Your task to perform on an android device: Show me popular games on the Play Store Image 0: 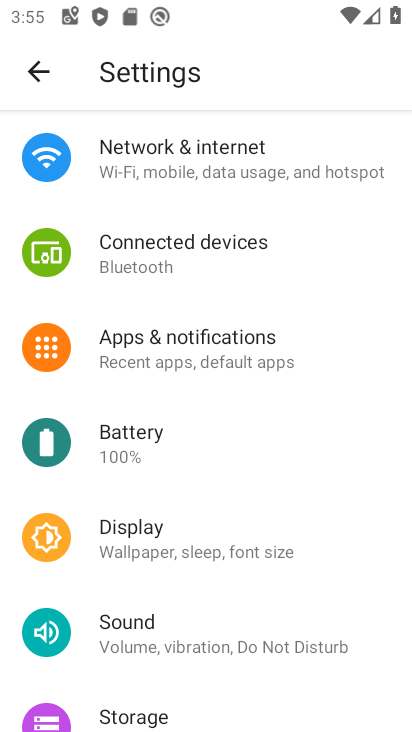
Step 0: press home button
Your task to perform on an android device: Show me popular games on the Play Store Image 1: 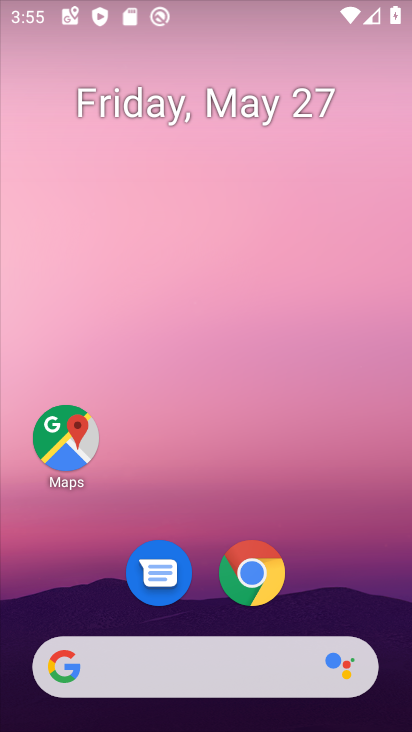
Step 1: drag from (236, 512) to (246, 0)
Your task to perform on an android device: Show me popular games on the Play Store Image 2: 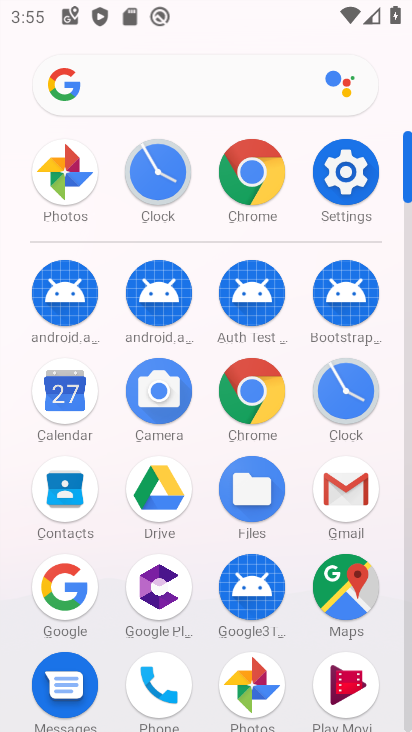
Step 2: drag from (95, 653) to (96, 457)
Your task to perform on an android device: Show me popular games on the Play Store Image 3: 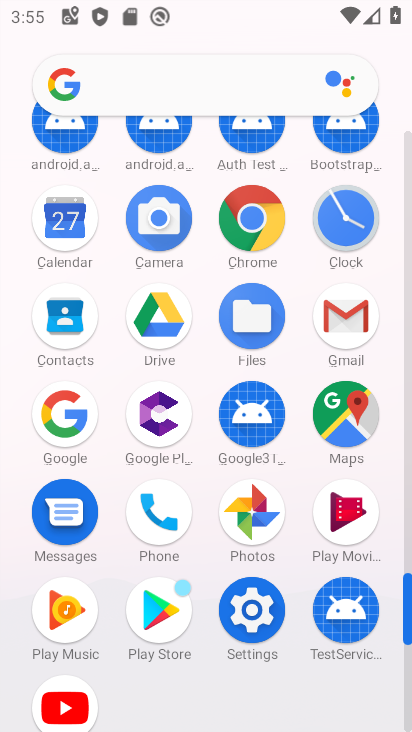
Step 3: click (144, 597)
Your task to perform on an android device: Show me popular games on the Play Store Image 4: 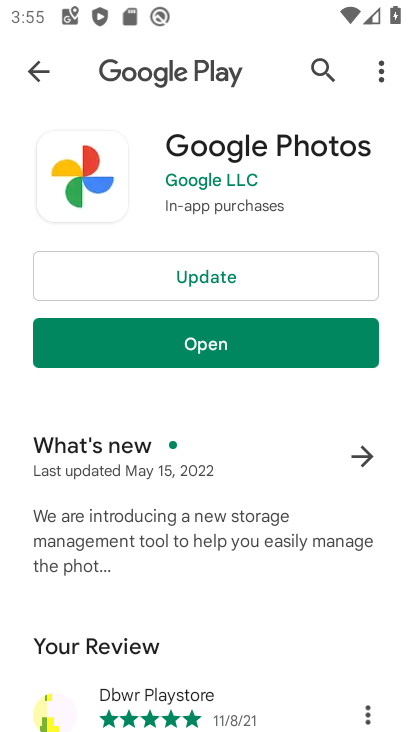
Step 4: click (37, 70)
Your task to perform on an android device: Show me popular games on the Play Store Image 5: 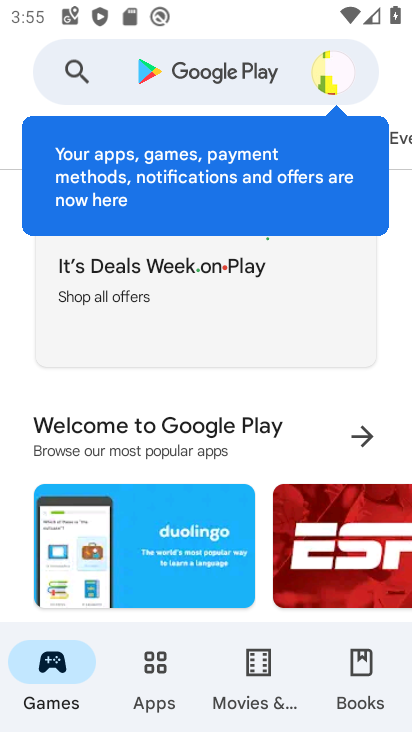
Step 5: click (150, 675)
Your task to perform on an android device: Show me popular games on the Play Store Image 6: 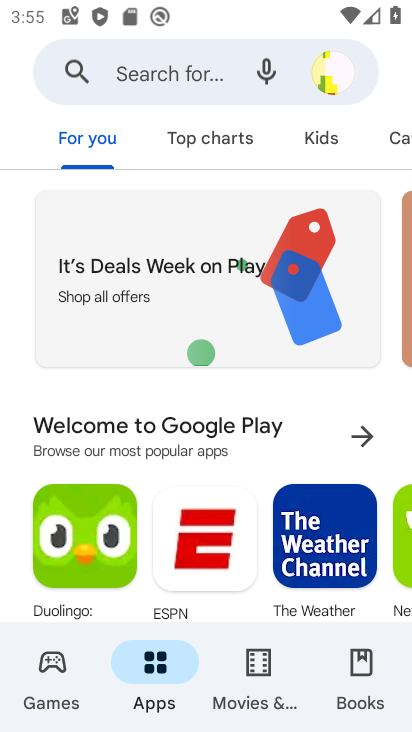
Step 6: click (42, 664)
Your task to perform on an android device: Show me popular games on the Play Store Image 7: 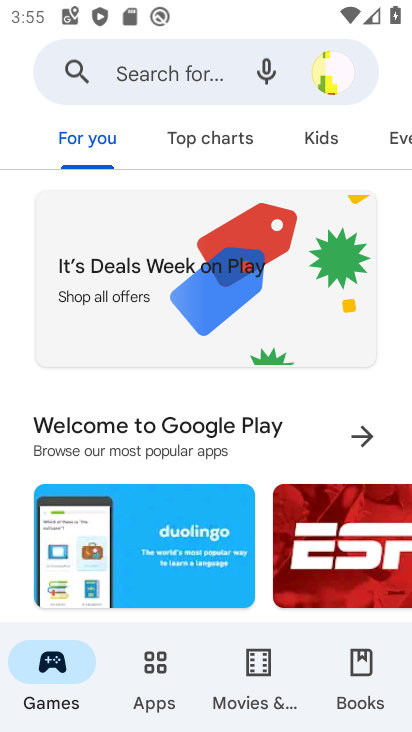
Step 7: drag from (287, 464) to (308, 80)
Your task to perform on an android device: Show me popular games on the Play Store Image 8: 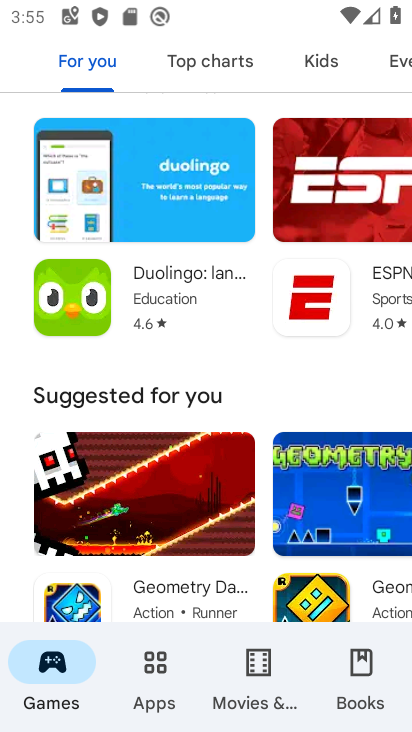
Step 8: drag from (248, 511) to (260, 36)
Your task to perform on an android device: Show me popular games on the Play Store Image 9: 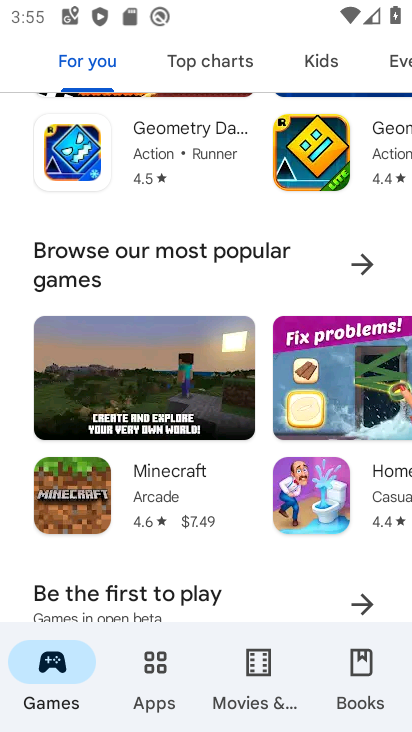
Step 9: click (358, 262)
Your task to perform on an android device: Show me popular games on the Play Store Image 10: 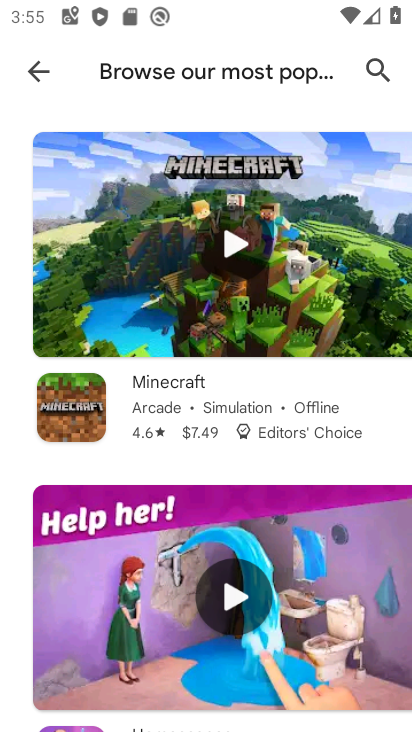
Step 10: task complete